Your task to perform on an android device: Go to Reddit.com Image 0: 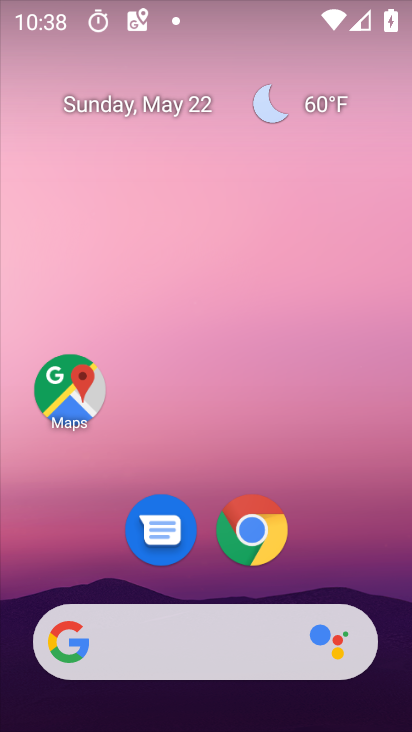
Step 0: click (236, 515)
Your task to perform on an android device: Go to Reddit.com Image 1: 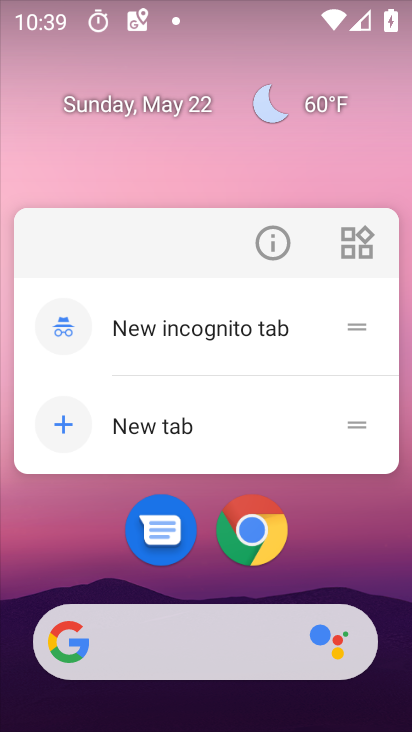
Step 1: click (266, 530)
Your task to perform on an android device: Go to Reddit.com Image 2: 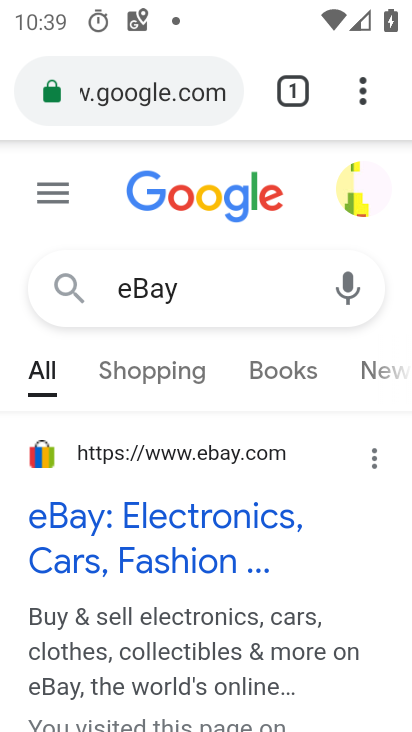
Step 2: click (226, 95)
Your task to perform on an android device: Go to Reddit.com Image 3: 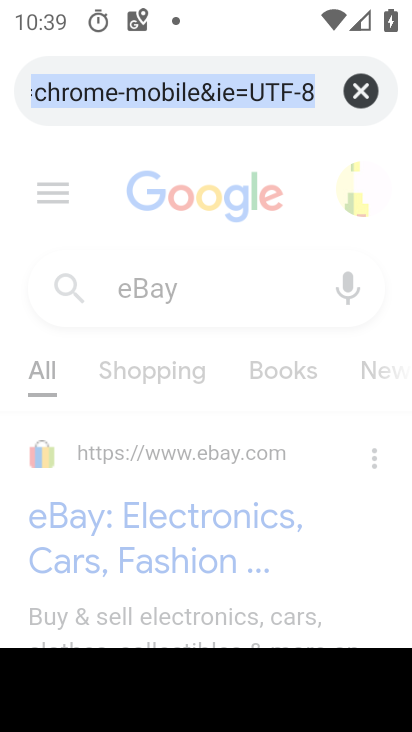
Step 3: click (351, 95)
Your task to perform on an android device: Go to Reddit.com Image 4: 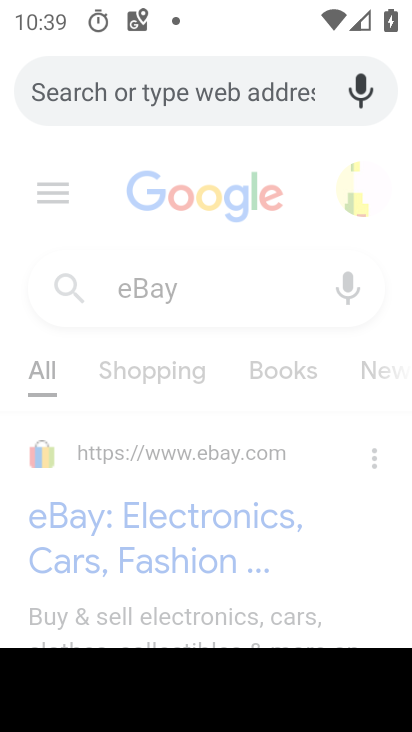
Step 4: type " Reddit.com"
Your task to perform on an android device: Go to Reddit.com Image 5: 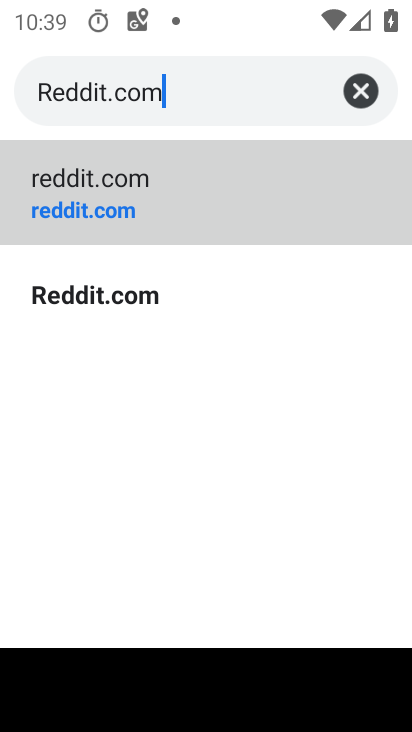
Step 5: click (76, 283)
Your task to perform on an android device: Go to Reddit.com Image 6: 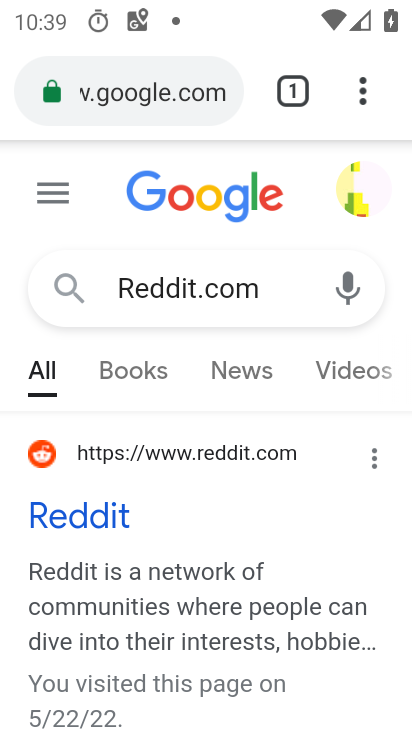
Step 6: task complete